Your task to perform on an android device: turn on priority inbox in the gmail app Image 0: 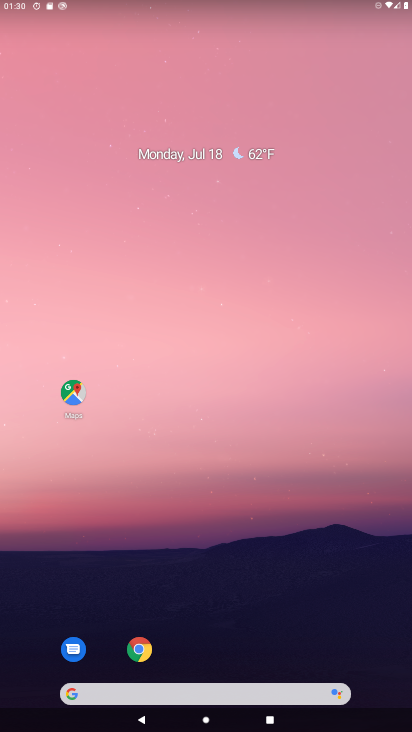
Step 0: drag from (41, 695) to (204, 234)
Your task to perform on an android device: turn on priority inbox in the gmail app Image 1: 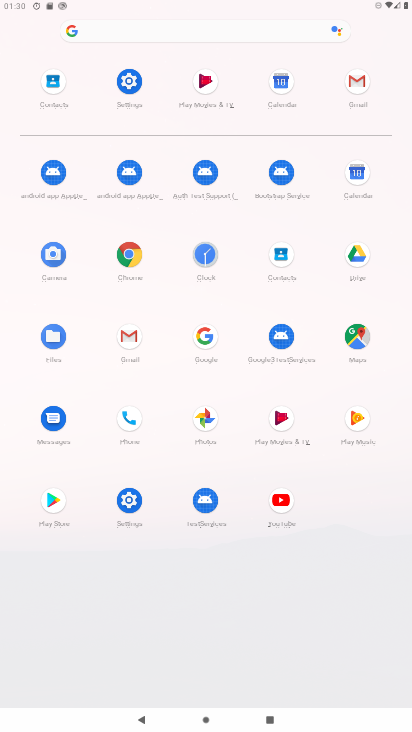
Step 1: click (110, 333)
Your task to perform on an android device: turn on priority inbox in the gmail app Image 2: 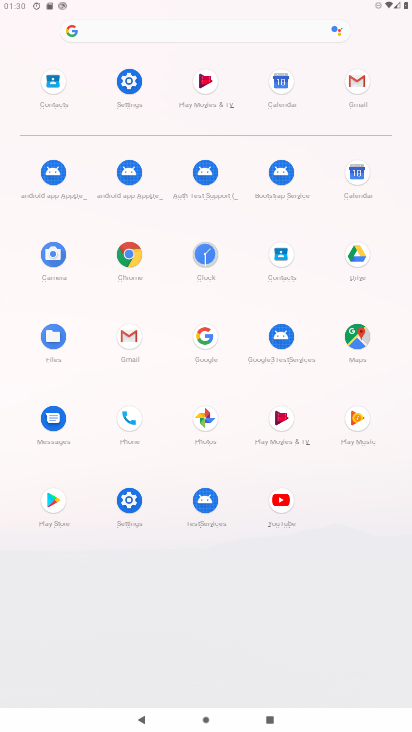
Step 2: click (128, 333)
Your task to perform on an android device: turn on priority inbox in the gmail app Image 3: 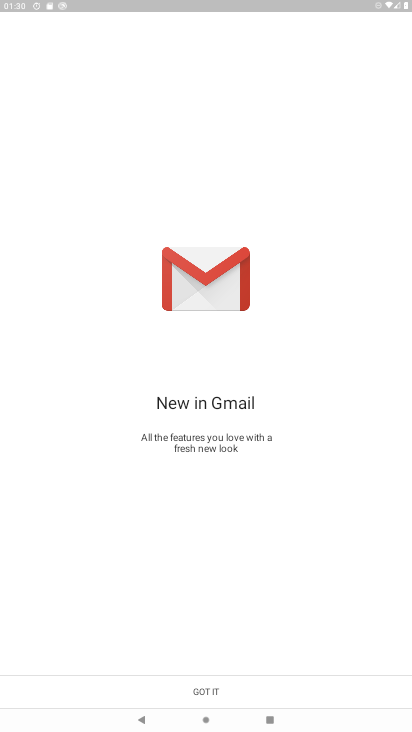
Step 3: click (200, 680)
Your task to perform on an android device: turn on priority inbox in the gmail app Image 4: 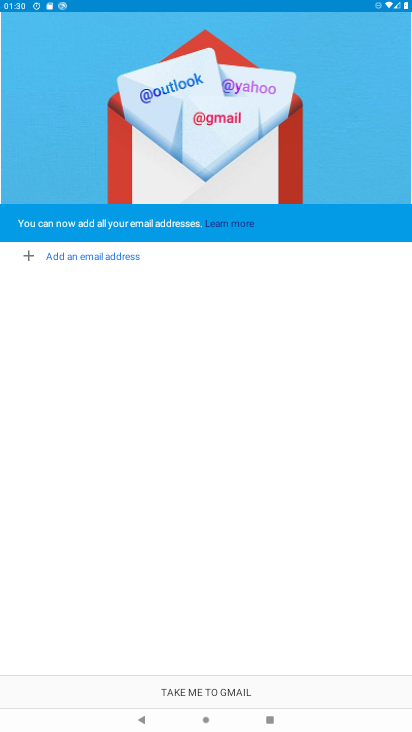
Step 4: click (187, 685)
Your task to perform on an android device: turn on priority inbox in the gmail app Image 5: 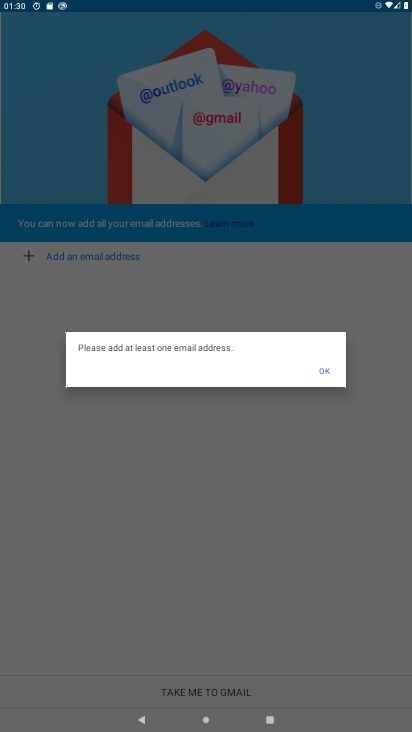
Step 5: task complete